Your task to perform on an android device: turn off data saver in the chrome app Image 0: 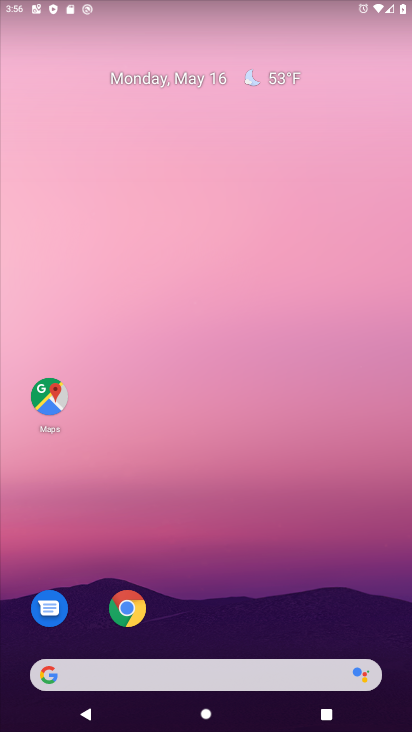
Step 0: click (126, 609)
Your task to perform on an android device: turn off data saver in the chrome app Image 1: 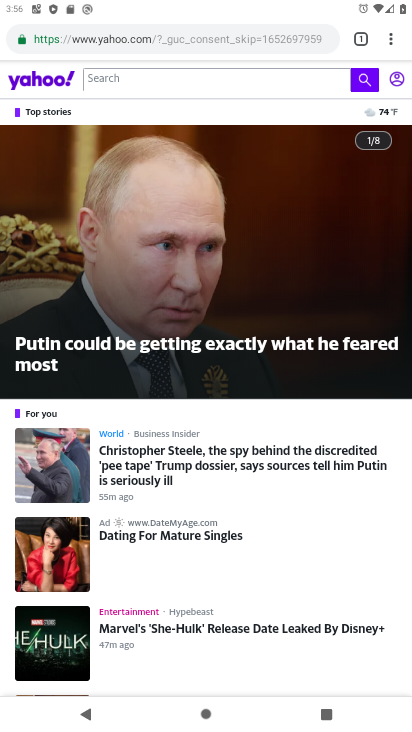
Step 1: click (390, 40)
Your task to perform on an android device: turn off data saver in the chrome app Image 2: 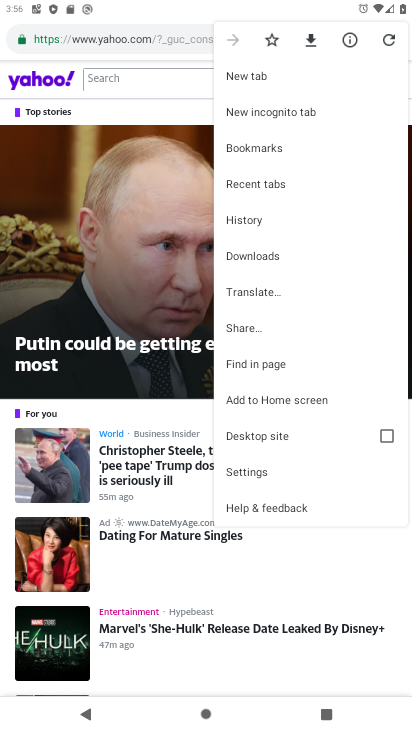
Step 2: click (255, 467)
Your task to perform on an android device: turn off data saver in the chrome app Image 3: 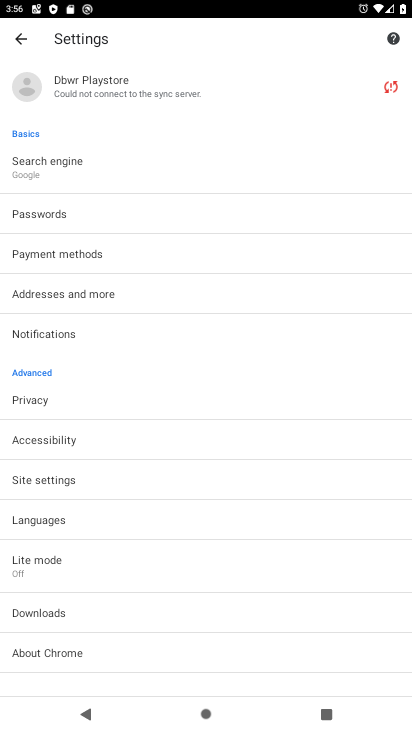
Step 3: click (82, 559)
Your task to perform on an android device: turn off data saver in the chrome app Image 4: 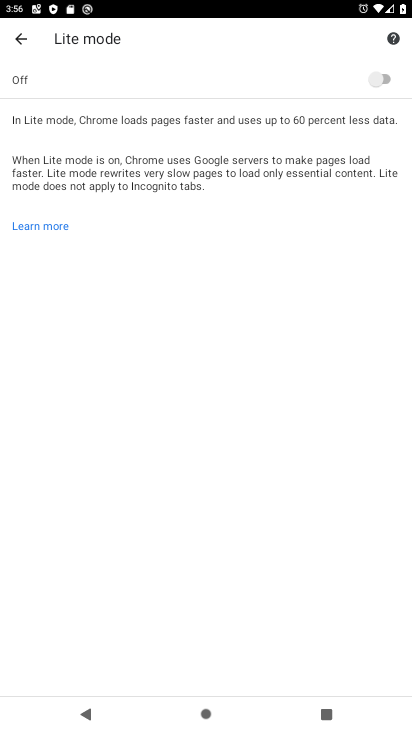
Step 4: task complete